Your task to perform on an android device: turn on sleep mode Image 0: 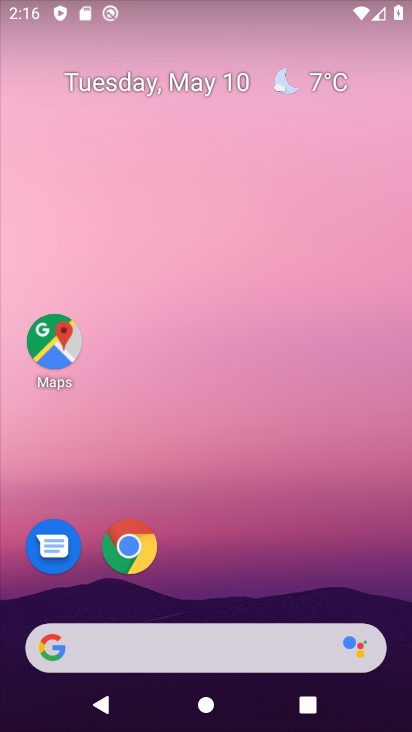
Step 0: drag from (265, 570) to (271, 213)
Your task to perform on an android device: turn on sleep mode Image 1: 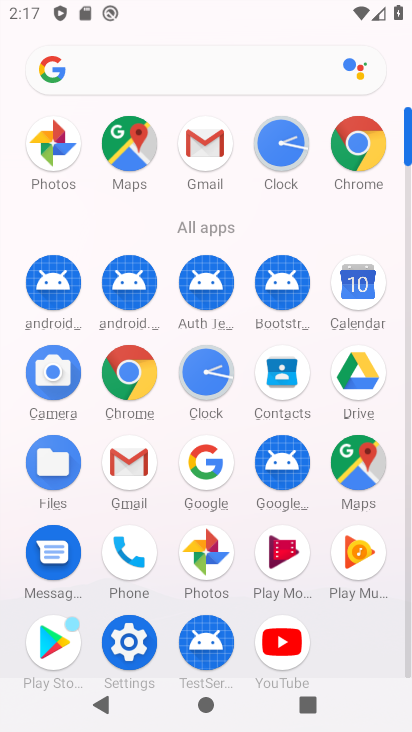
Step 1: click (125, 627)
Your task to perform on an android device: turn on sleep mode Image 2: 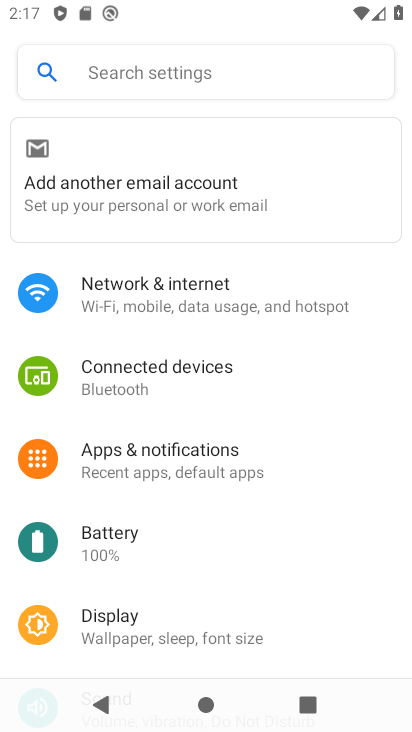
Step 2: drag from (157, 565) to (206, 254)
Your task to perform on an android device: turn on sleep mode Image 3: 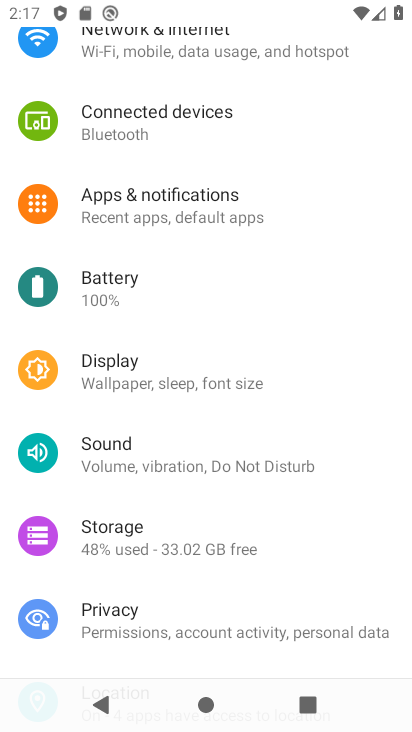
Step 3: click (162, 377)
Your task to perform on an android device: turn on sleep mode Image 4: 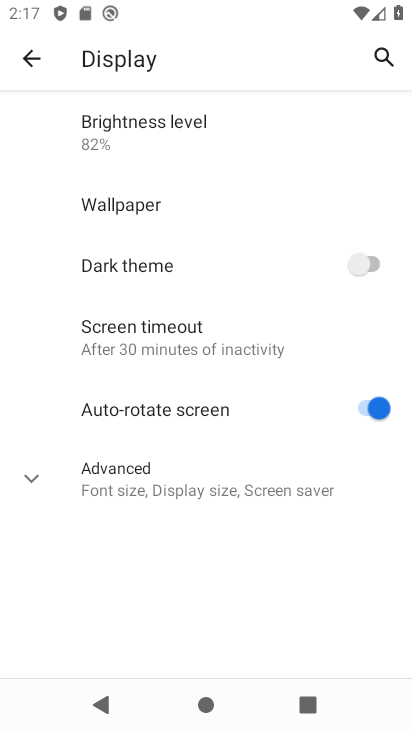
Step 4: click (31, 482)
Your task to perform on an android device: turn on sleep mode Image 5: 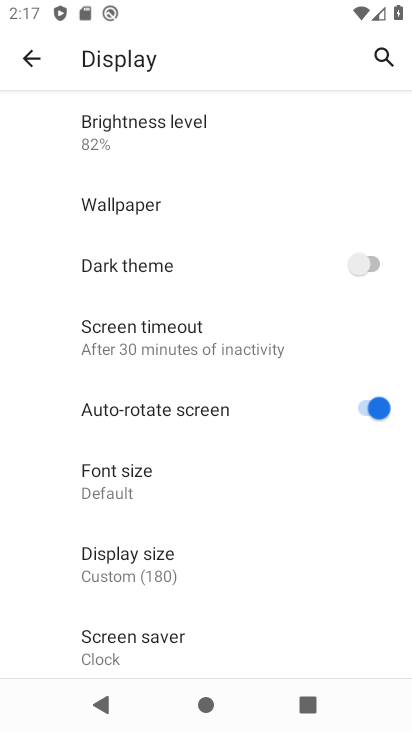
Step 5: task complete